Your task to perform on an android device: Open settings on Google Maps Image 0: 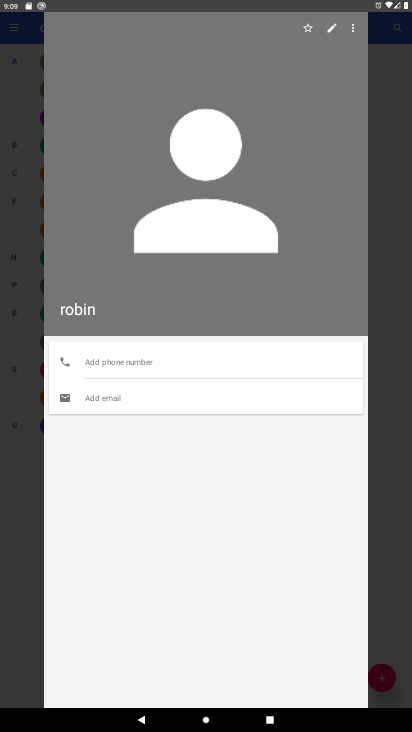
Step 0: press home button
Your task to perform on an android device: Open settings on Google Maps Image 1: 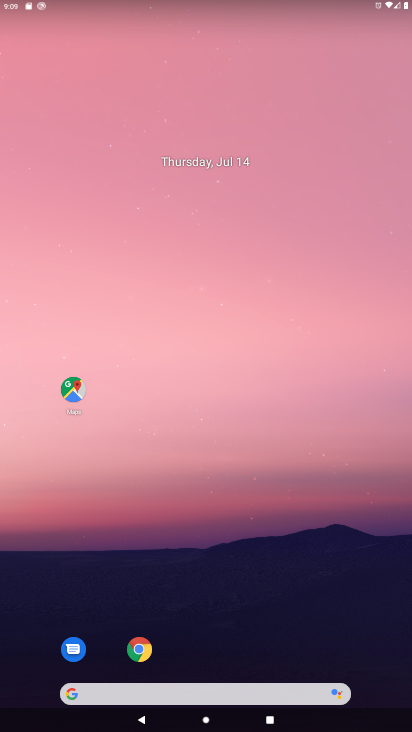
Step 1: drag from (210, 649) to (163, 2)
Your task to perform on an android device: Open settings on Google Maps Image 2: 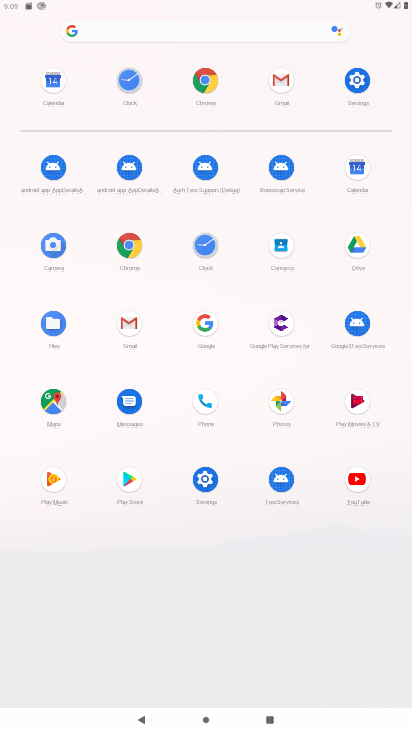
Step 2: click (53, 416)
Your task to perform on an android device: Open settings on Google Maps Image 3: 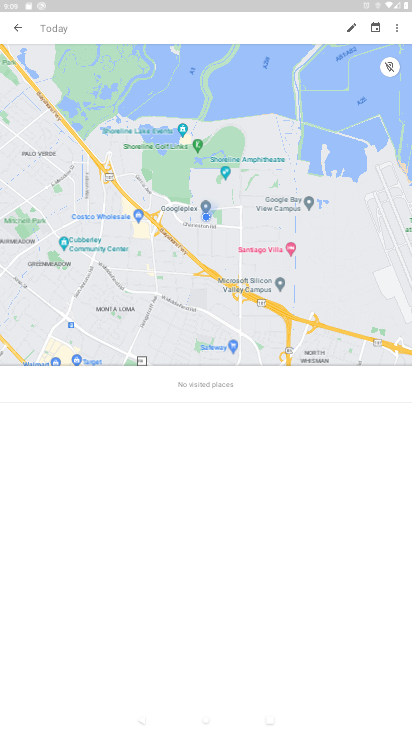
Step 3: click (9, 29)
Your task to perform on an android device: Open settings on Google Maps Image 4: 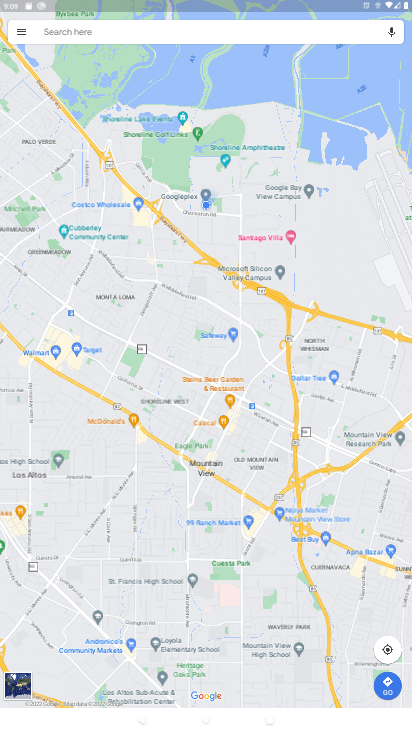
Step 4: click (18, 34)
Your task to perform on an android device: Open settings on Google Maps Image 5: 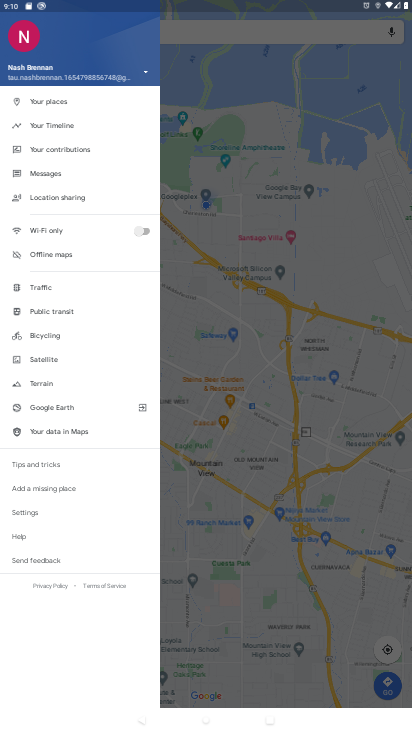
Step 5: click (31, 516)
Your task to perform on an android device: Open settings on Google Maps Image 6: 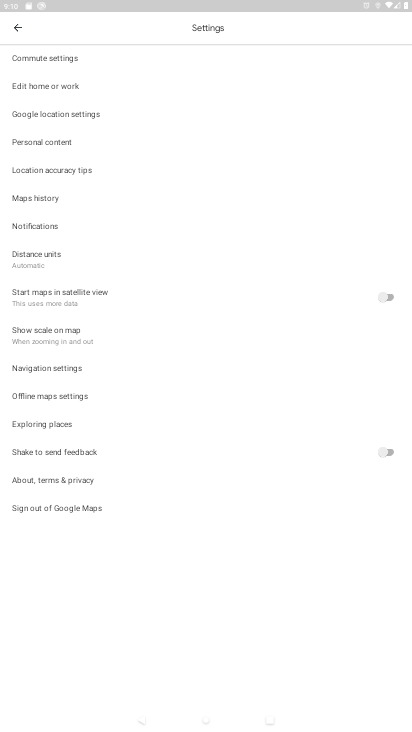
Step 6: task complete